Your task to perform on an android device: Open Amazon Image 0: 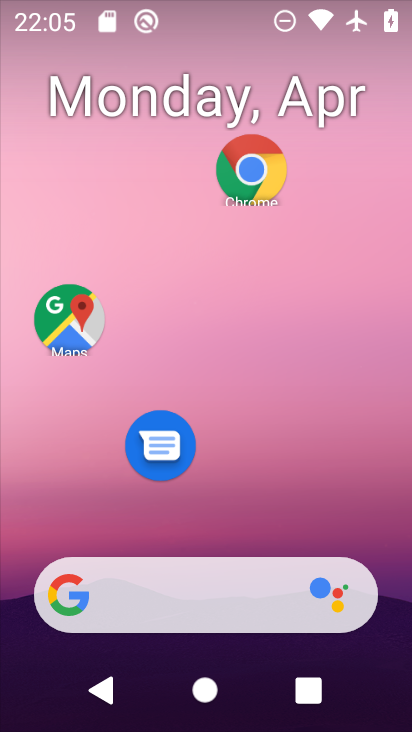
Step 0: click (191, 136)
Your task to perform on an android device: Open Amazon Image 1: 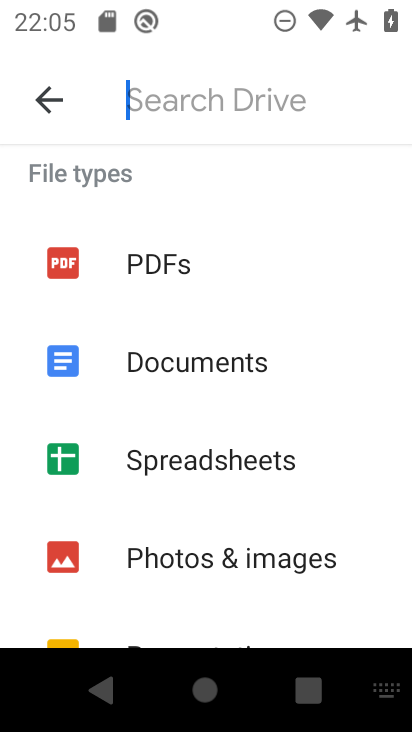
Step 1: press home button
Your task to perform on an android device: Open Amazon Image 2: 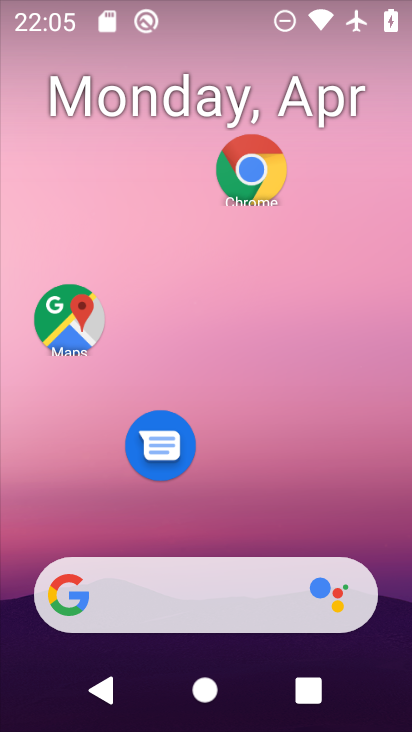
Step 2: click (269, 179)
Your task to perform on an android device: Open Amazon Image 3: 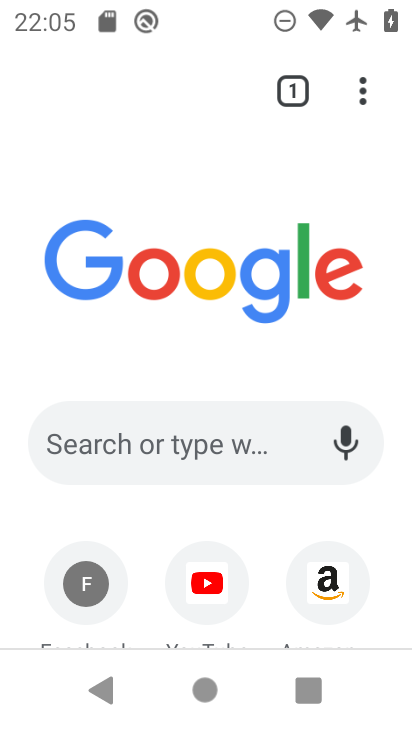
Step 3: click (317, 575)
Your task to perform on an android device: Open Amazon Image 4: 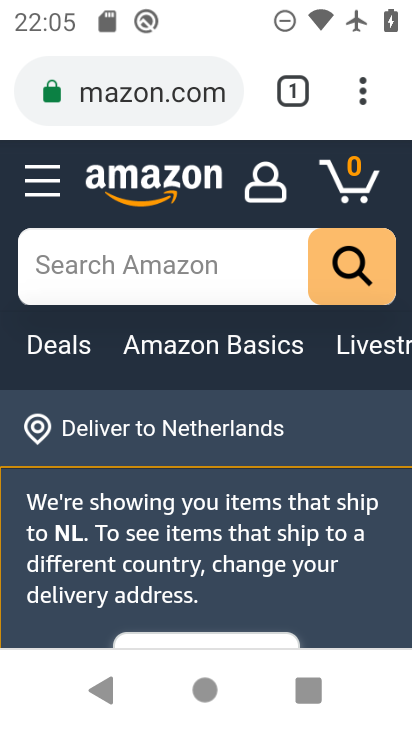
Step 4: task complete